Your task to perform on an android device: set an alarm Image 0: 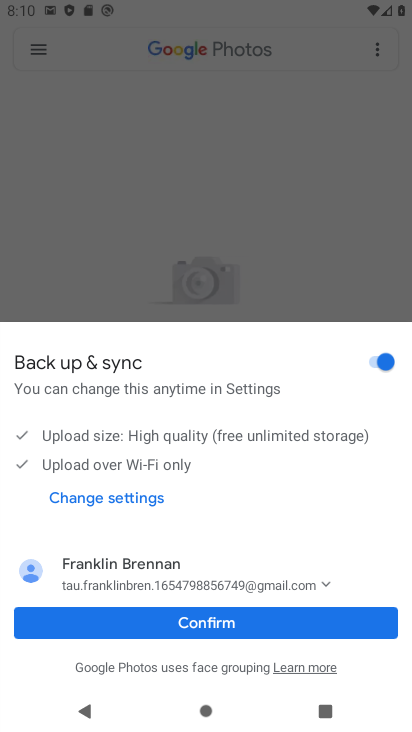
Step 0: press home button
Your task to perform on an android device: set an alarm Image 1: 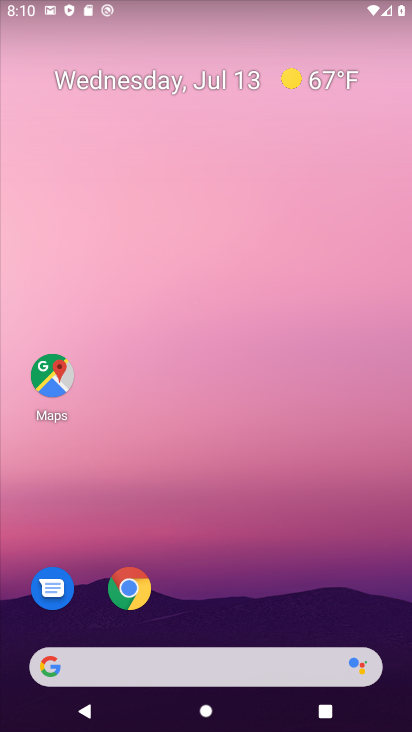
Step 1: drag from (268, 435) to (212, 266)
Your task to perform on an android device: set an alarm Image 2: 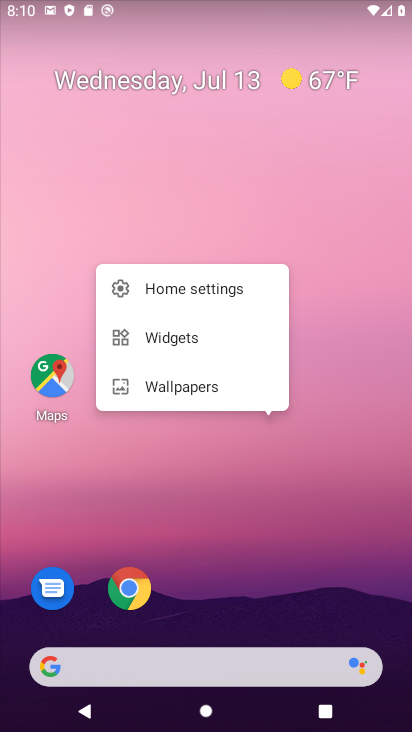
Step 2: click (300, 458)
Your task to perform on an android device: set an alarm Image 3: 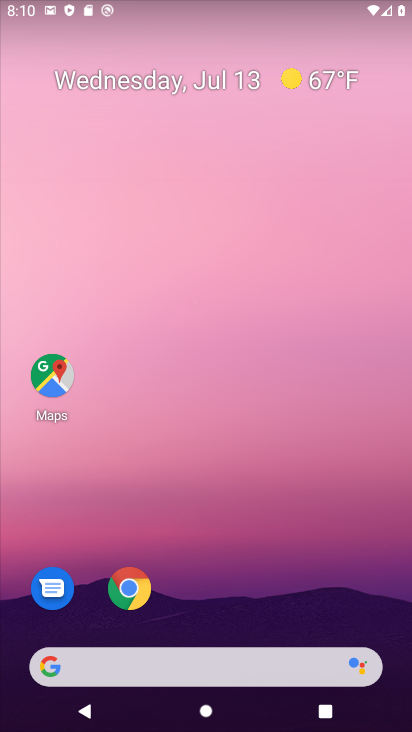
Step 3: drag from (286, 683) to (318, 165)
Your task to perform on an android device: set an alarm Image 4: 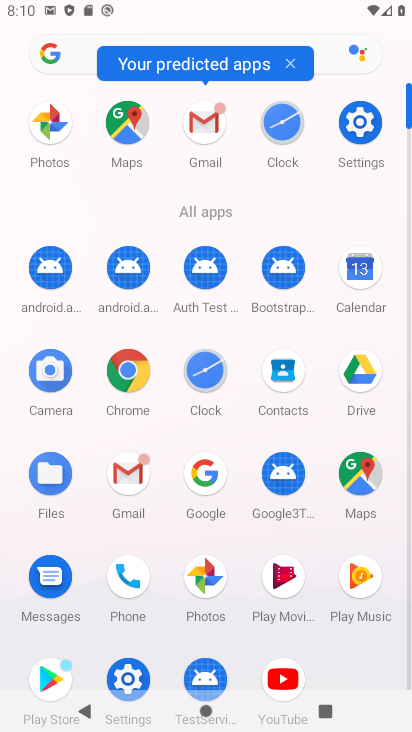
Step 4: click (199, 389)
Your task to perform on an android device: set an alarm Image 5: 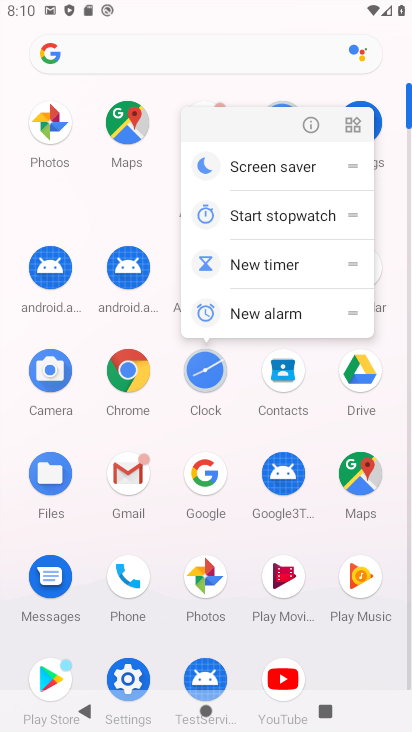
Step 5: click (212, 378)
Your task to perform on an android device: set an alarm Image 6: 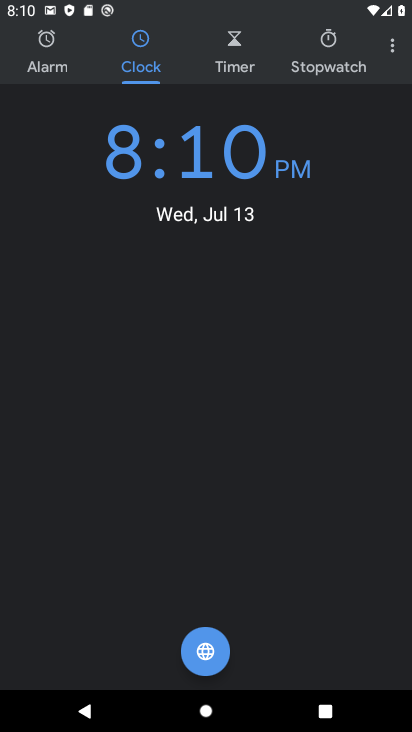
Step 6: click (55, 74)
Your task to perform on an android device: set an alarm Image 7: 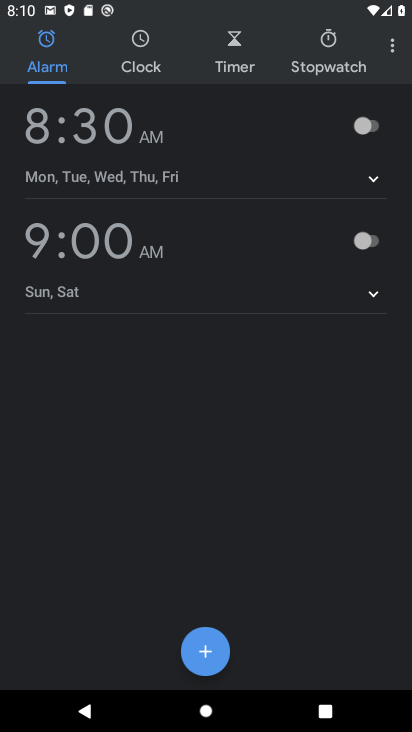
Step 7: click (370, 131)
Your task to perform on an android device: set an alarm Image 8: 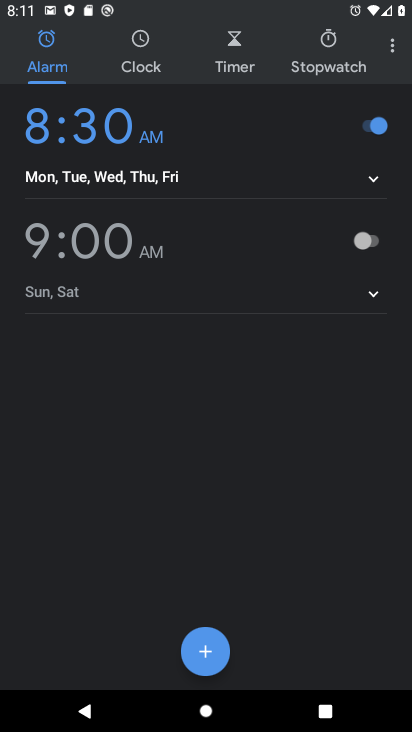
Step 8: task complete